Your task to perform on an android device: Clear the shopping cart on walmart. Search for "logitech g910" on walmart, select the first entry, add it to the cart, then select checkout. Image 0: 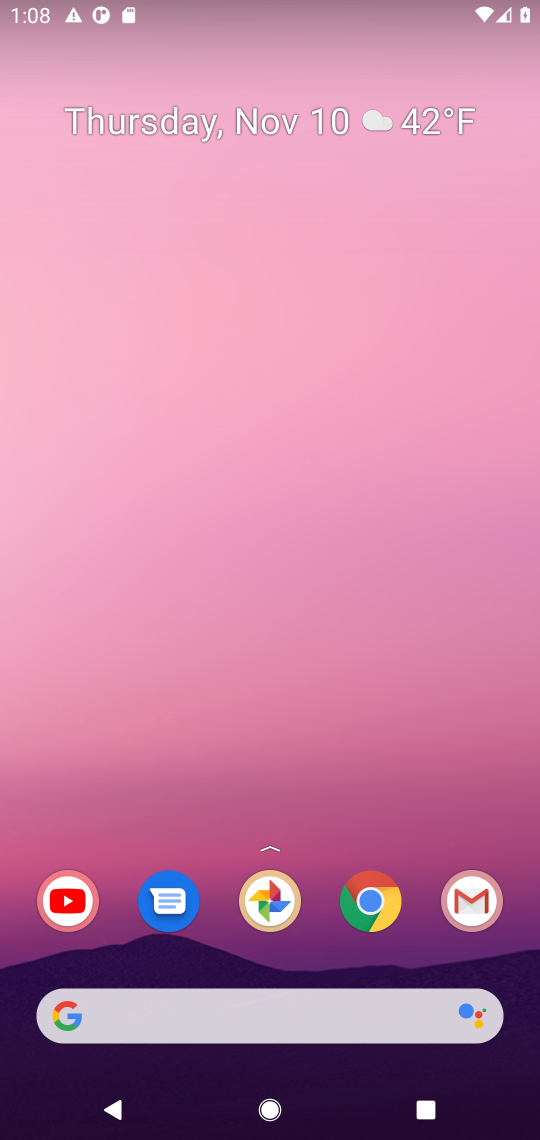
Step 0: drag from (130, 1000) to (163, 225)
Your task to perform on an android device: Clear the shopping cart on walmart. Search for "logitech g910" on walmart, select the first entry, add it to the cart, then select checkout. Image 1: 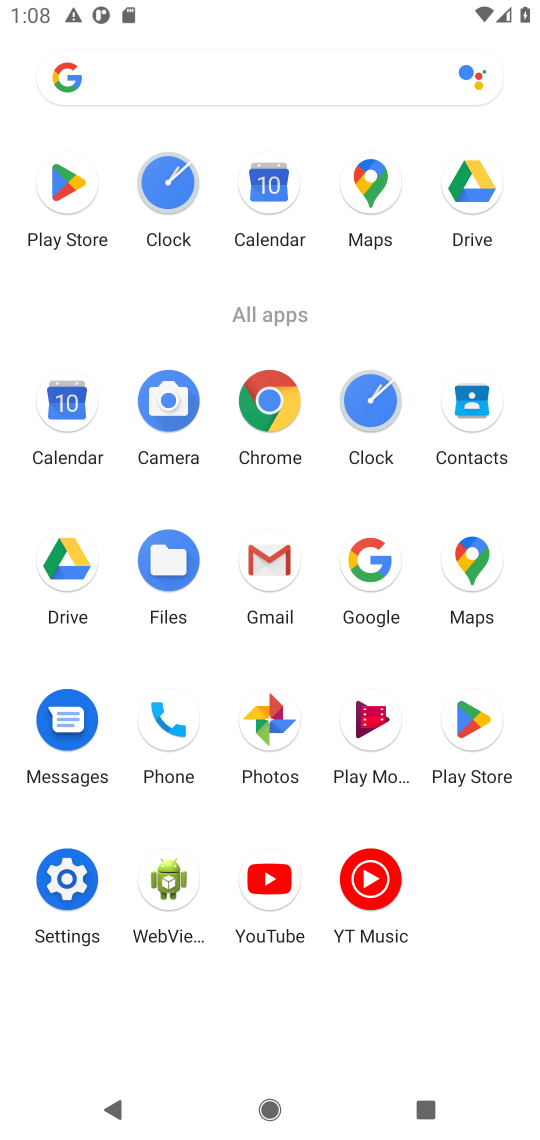
Step 1: click (279, 420)
Your task to perform on an android device: Clear the shopping cart on walmart. Search for "logitech g910" on walmart, select the first entry, add it to the cart, then select checkout. Image 2: 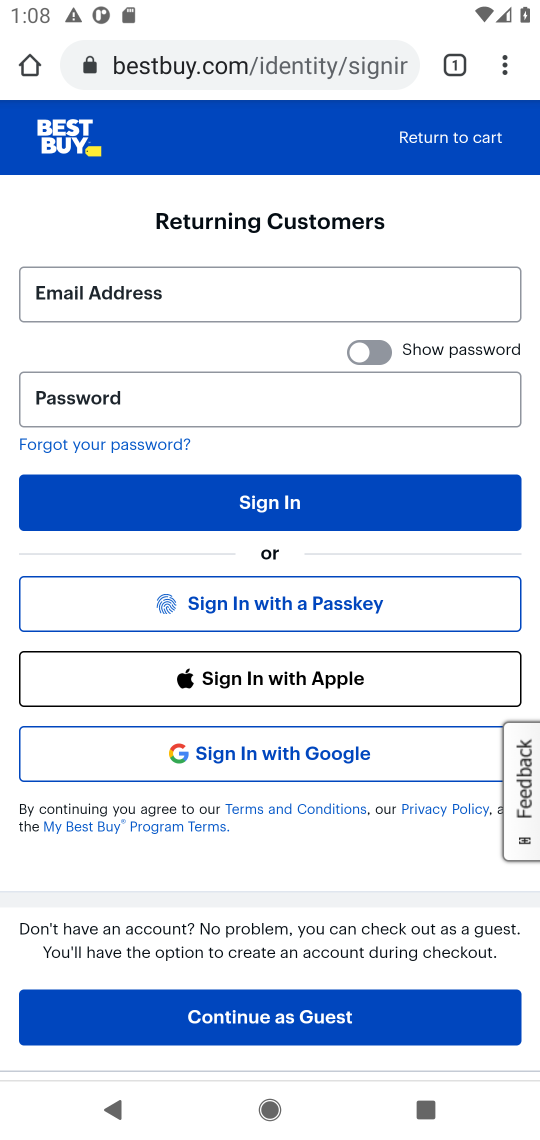
Step 2: click (117, 69)
Your task to perform on an android device: Clear the shopping cart on walmart. Search for "logitech g910" on walmart, select the first entry, add it to the cart, then select checkout. Image 3: 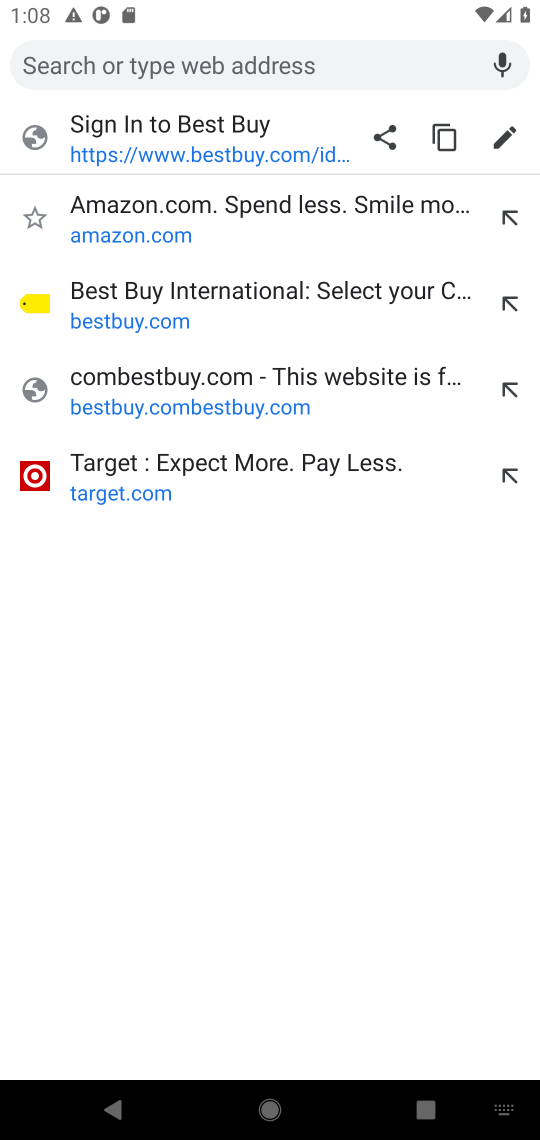
Step 3: type "walmart"
Your task to perform on an android device: Clear the shopping cart on walmart. Search for "logitech g910" on walmart, select the first entry, add it to the cart, then select checkout. Image 4: 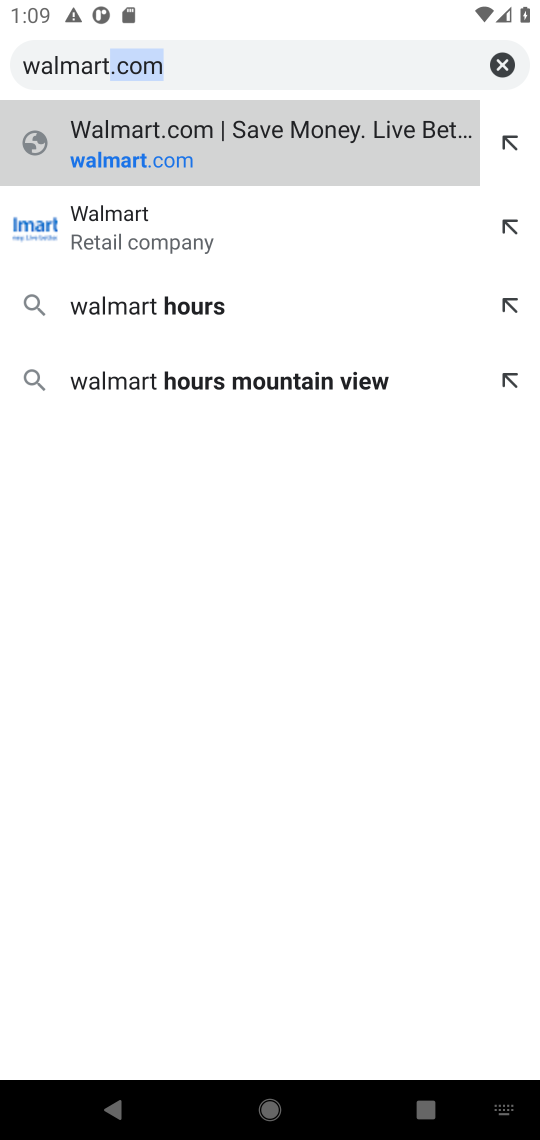
Step 4: press enter
Your task to perform on an android device: Clear the shopping cart on walmart. Search for "logitech g910" on walmart, select the first entry, add it to the cart, then select checkout. Image 5: 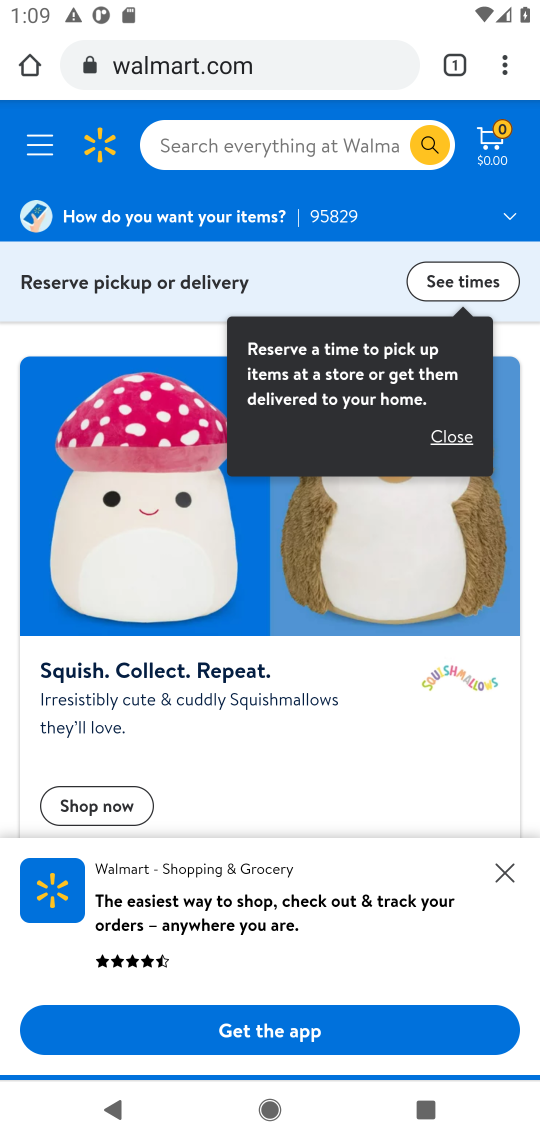
Step 5: click (242, 147)
Your task to perform on an android device: Clear the shopping cart on walmart. Search for "logitech g910" on walmart, select the first entry, add it to the cart, then select checkout. Image 6: 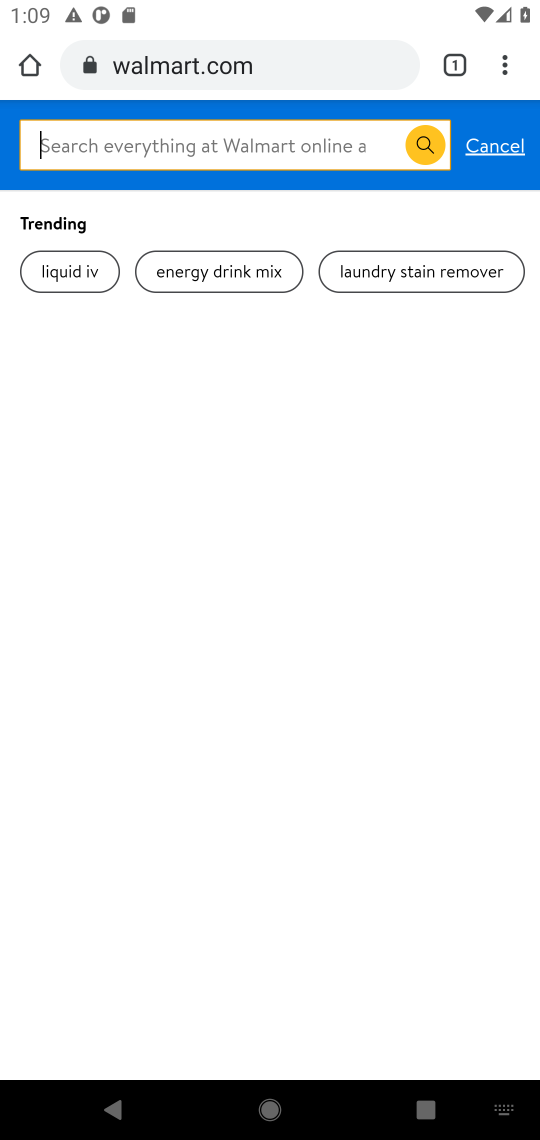
Step 6: type "logitech g910"
Your task to perform on an android device: Clear the shopping cart on walmart. Search for "logitech g910" on walmart, select the first entry, add it to the cart, then select checkout. Image 7: 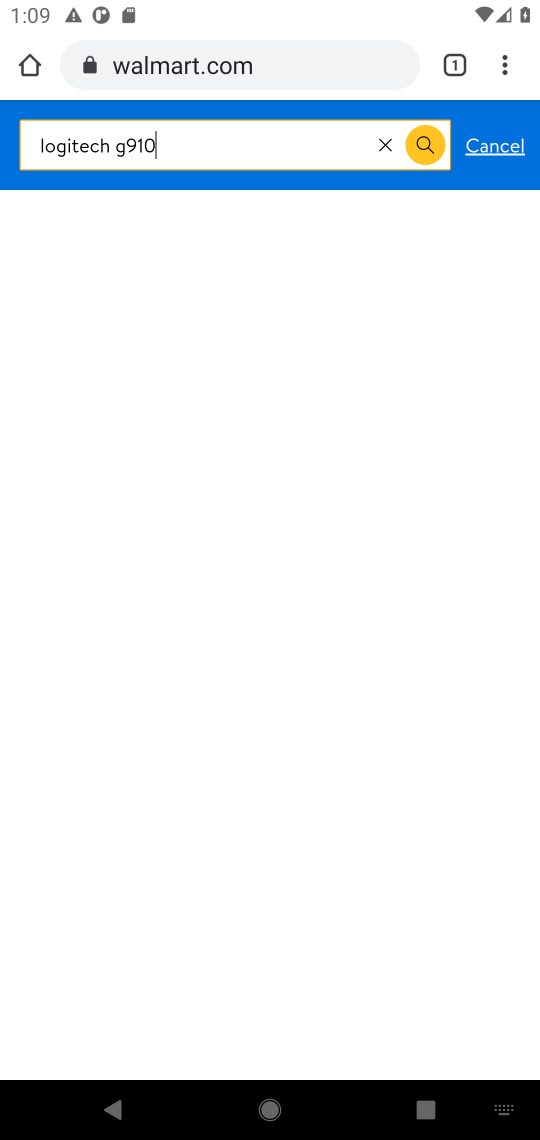
Step 7: press enter
Your task to perform on an android device: Clear the shopping cart on walmart. Search for "logitech g910" on walmart, select the first entry, add it to the cart, then select checkout. Image 8: 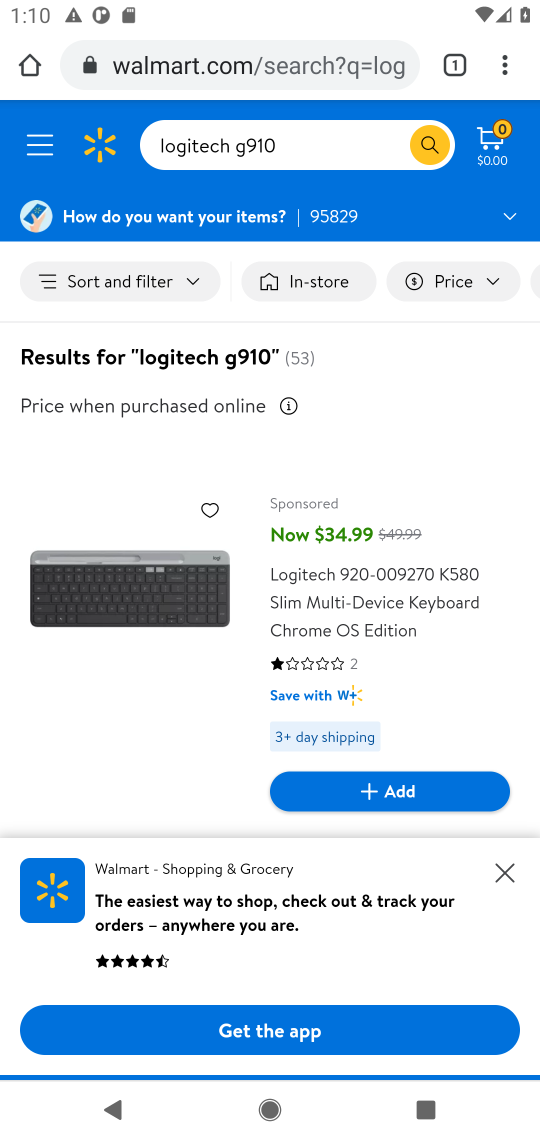
Step 8: click (375, 793)
Your task to perform on an android device: Clear the shopping cart on walmart. Search for "logitech g910" on walmart, select the first entry, add it to the cart, then select checkout. Image 9: 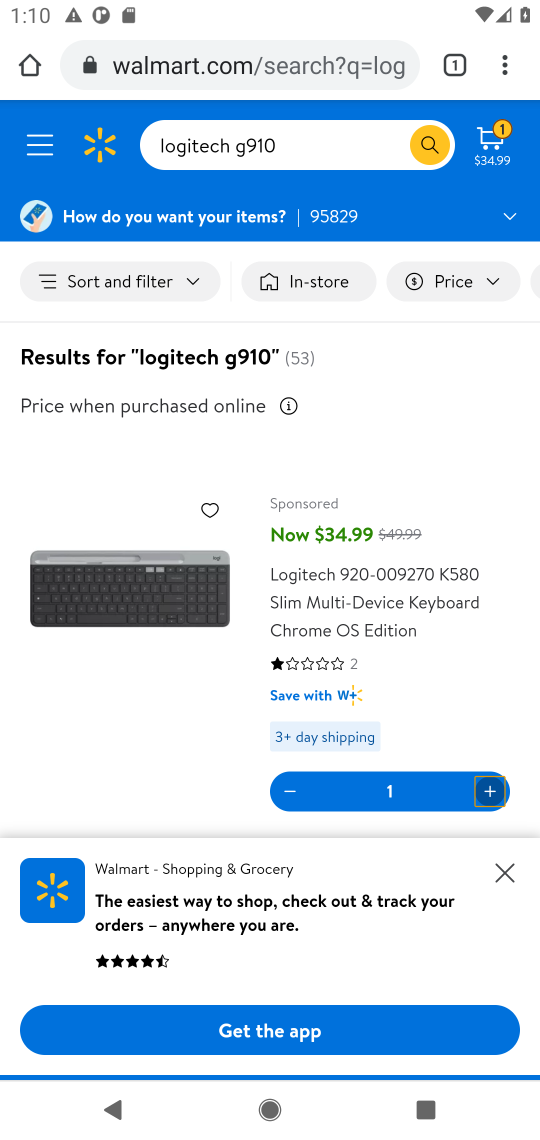
Step 9: click (492, 134)
Your task to perform on an android device: Clear the shopping cart on walmart. Search for "logitech g910" on walmart, select the first entry, add it to the cart, then select checkout. Image 10: 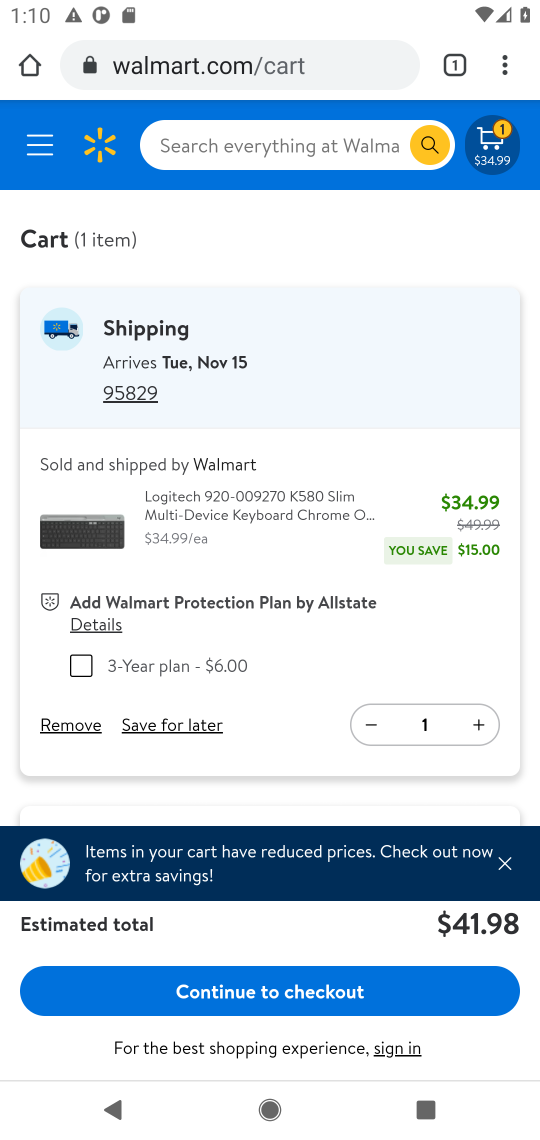
Step 10: click (290, 995)
Your task to perform on an android device: Clear the shopping cart on walmart. Search for "logitech g910" on walmart, select the first entry, add it to the cart, then select checkout. Image 11: 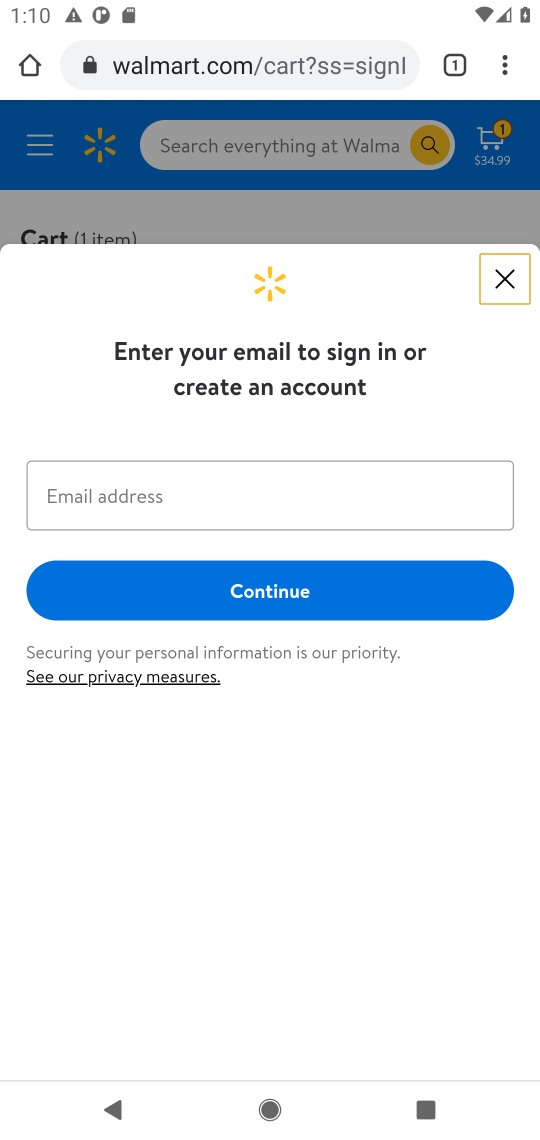
Step 11: task complete